Your task to perform on an android device: toggle data saver in the chrome app Image 0: 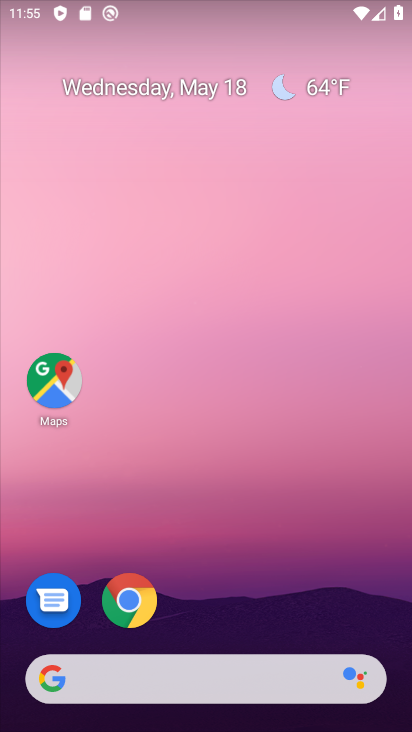
Step 0: click (128, 606)
Your task to perform on an android device: toggle data saver in the chrome app Image 1: 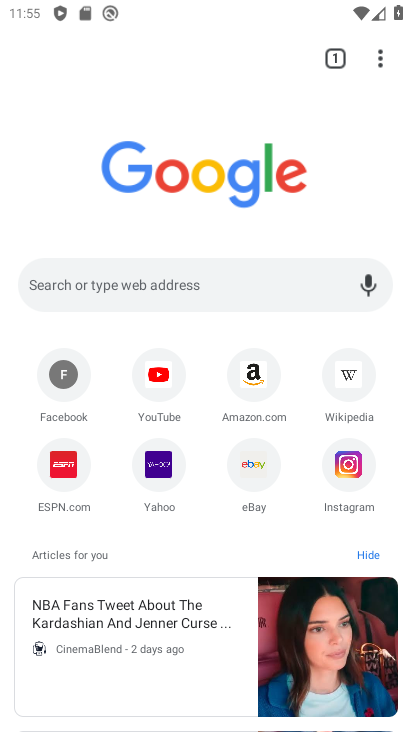
Step 1: click (376, 59)
Your task to perform on an android device: toggle data saver in the chrome app Image 2: 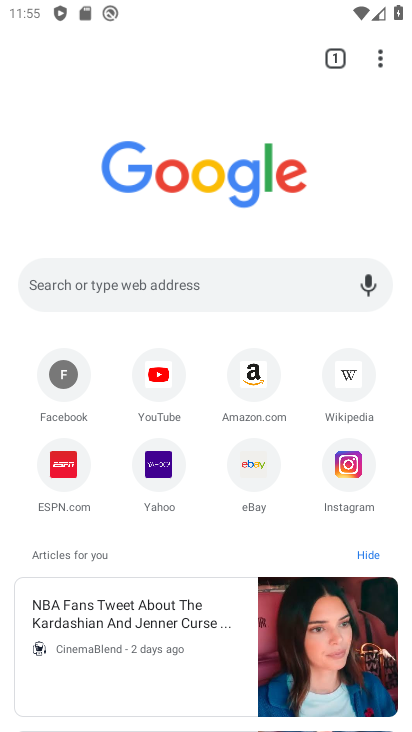
Step 2: drag from (378, 56) to (159, 486)
Your task to perform on an android device: toggle data saver in the chrome app Image 3: 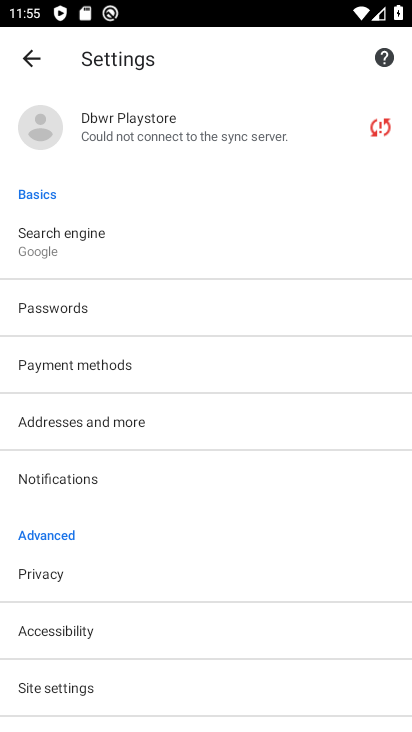
Step 3: drag from (230, 575) to (165, 95)
Your task to perform on an android device: toggle data saver in the chrome app Image 4: 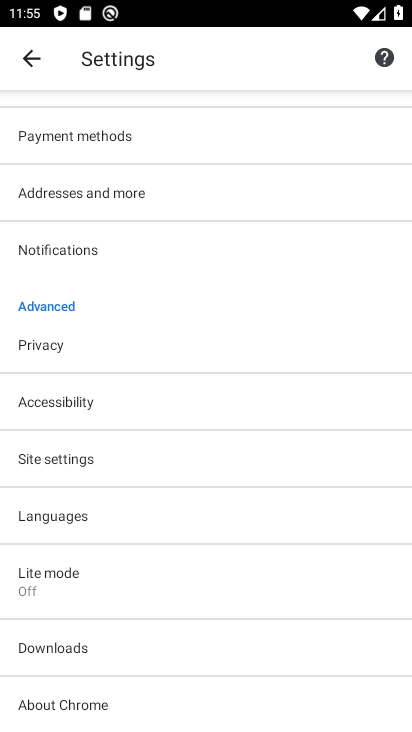
Step 4: click (99, 564)
Your task to perform on an android device: toggle data saver in the chrome app Image 5: 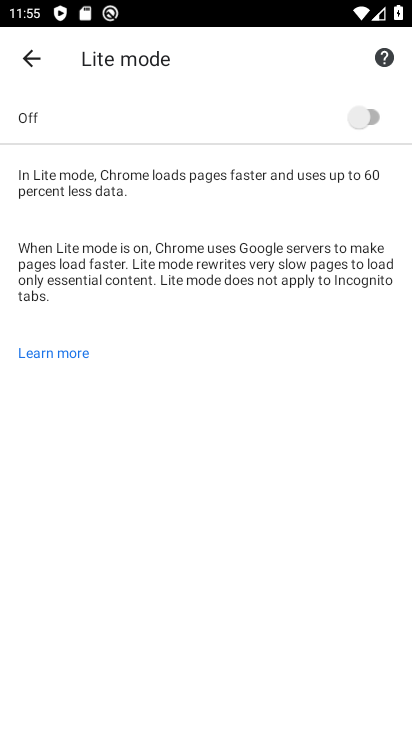
Step 5: task complete